Your task to perform on an android device: open a bookmark in the chrome app Image 0: 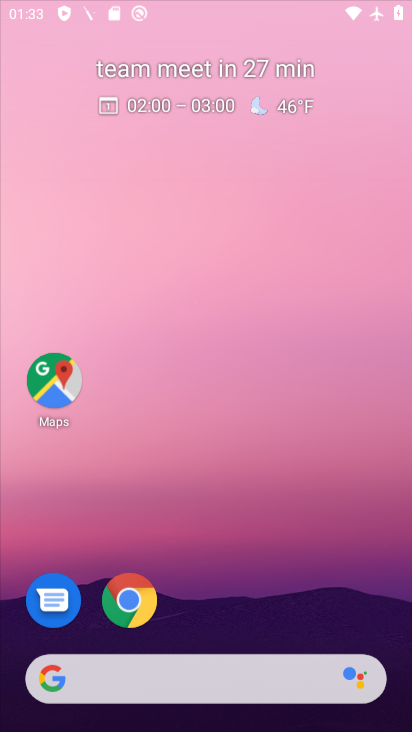
Step 0: drag from (129, 3) to (95, 2)
Your task to perform on an android device: open a bookmark in the chrome app Image 1: 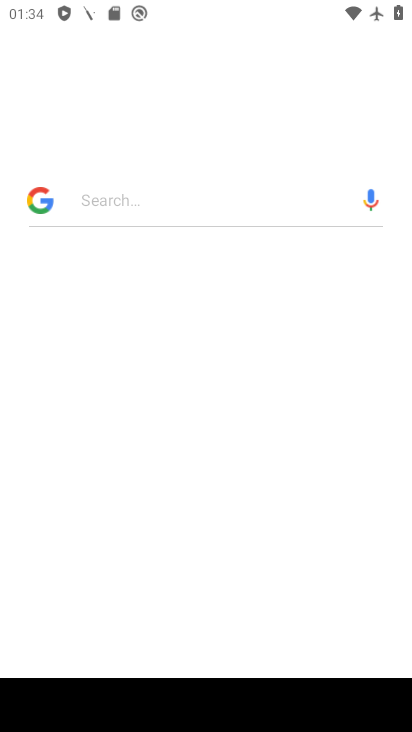
Step 1: press back button
Your task to perform on an android device: open a bookmark in the chrome app Image 2: 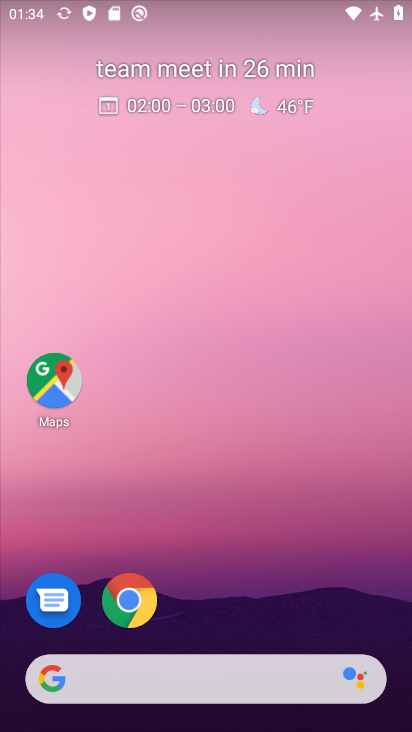
Step 2: drag from (224, 639) to (114, 52)
Your task to perform on an android device: open a bookmark in the chrome app Image 3: 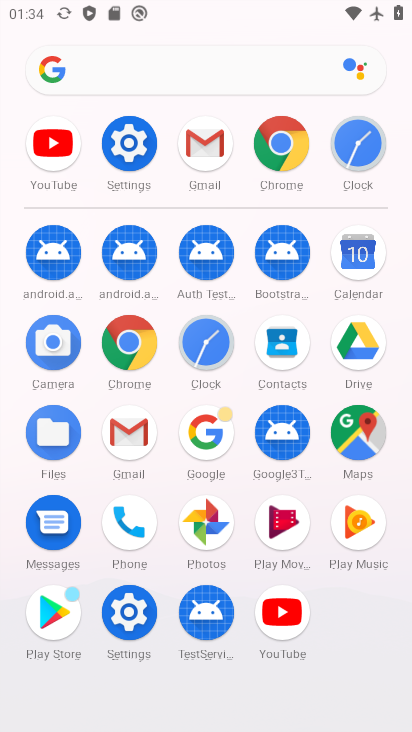
Step 3: click (271, 148)
Your task to perform on an android device: open a bookmark in the chrome app Image 4: 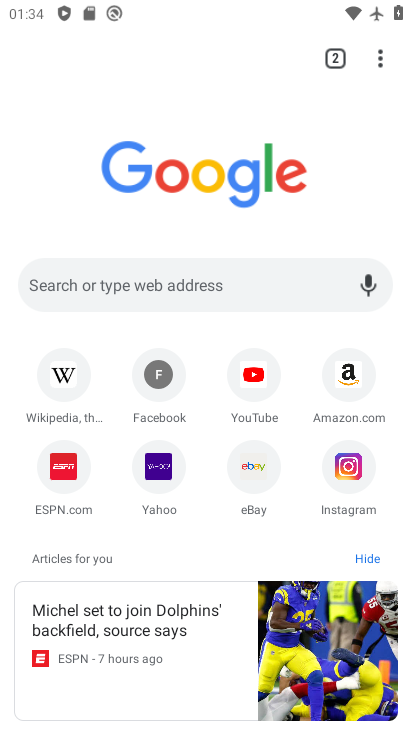
Step 4: click (380, 51)
Your task to perform on an android device: open a bookmark in the chrome app Image 5: 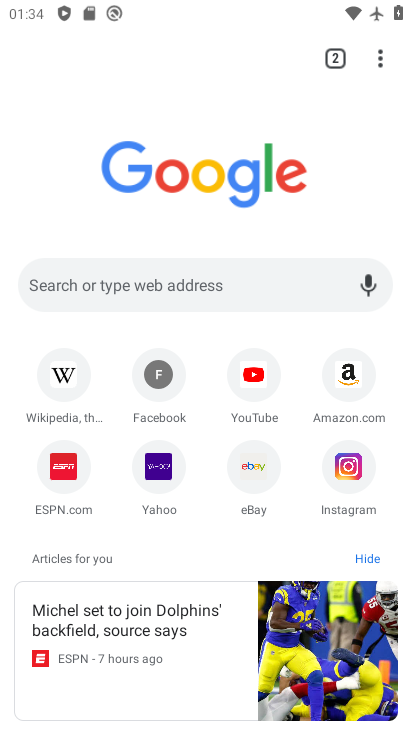
Step 5: click (380, 53)
Your task to perform on an android device: open a bookmark in the chrome app Image 6: 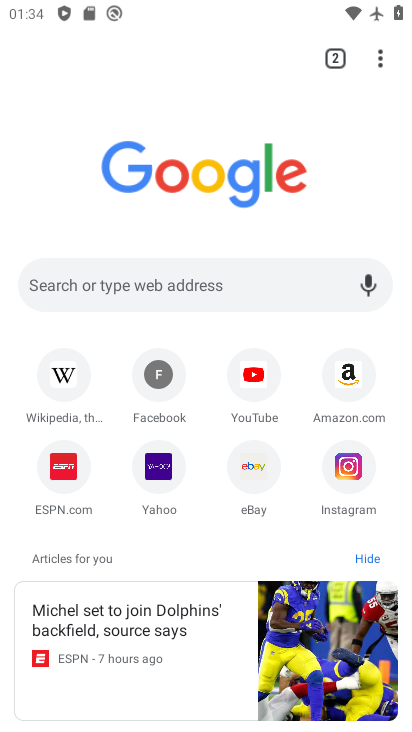
Step 6: task complete